Your task to perform on an android device: Open maps Image 0: 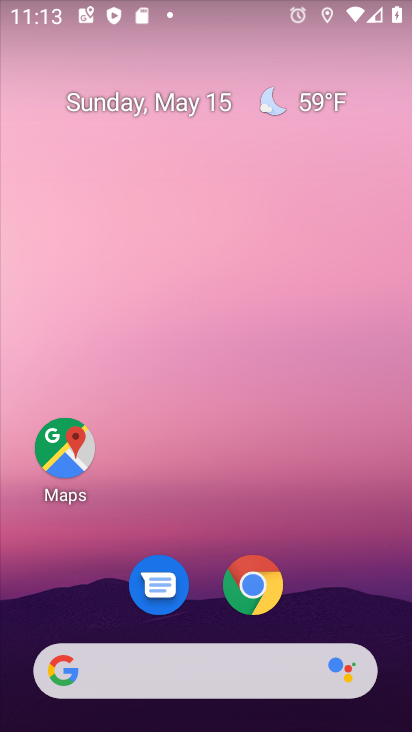
Step 0: click (54, 442)
Your task to perform on an android device: Open maps Image 1: 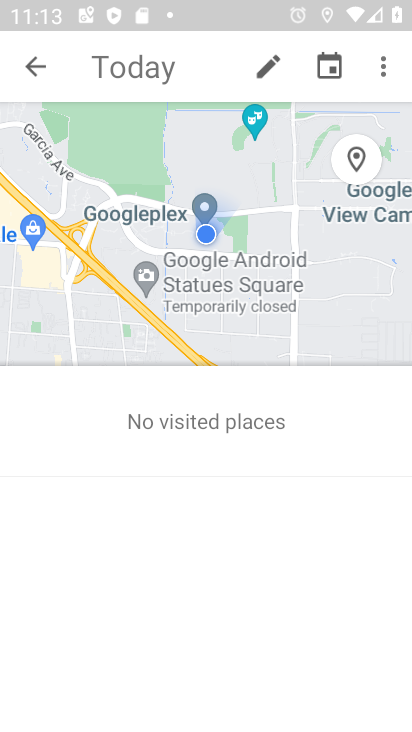
Step 1: click (35, 65)
Your task to perform on an android device: Open maps Image 2: 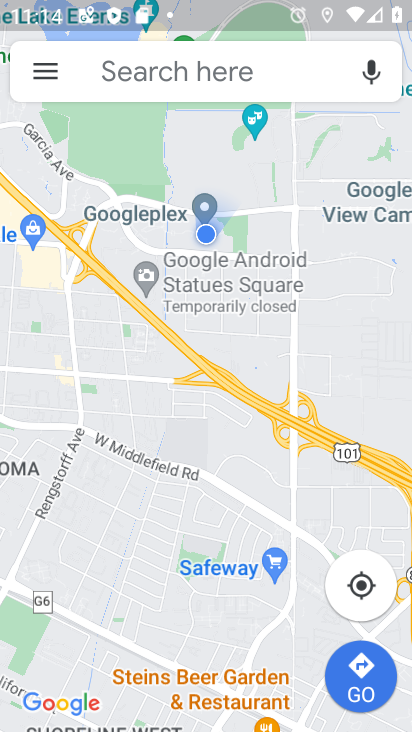
Step 2: task complete